Your task to perform on an android device: visit the assistant section in the google photos Image 0: 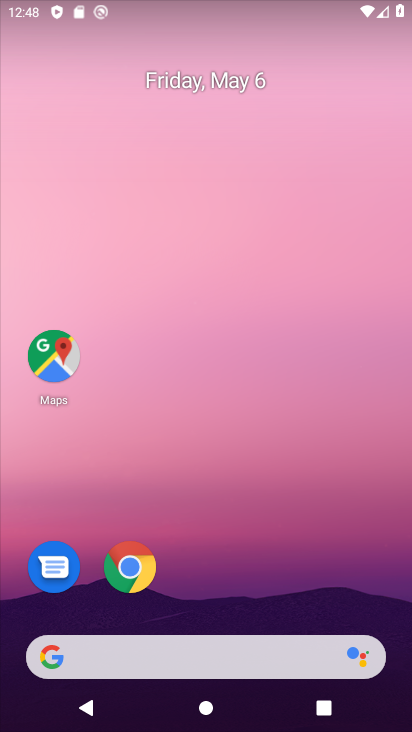
Step 0: drag from (263, 687) to (242, 234)
Your task to perform on an android device: visit the assistant section in the google photos Image 1: 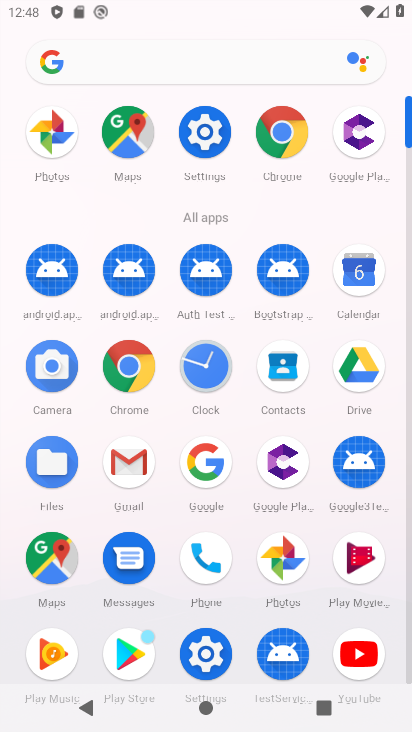
Step 1: click (279, 549)
Your task to perform on an android device: visit the assistant section in the google photos Image 2: 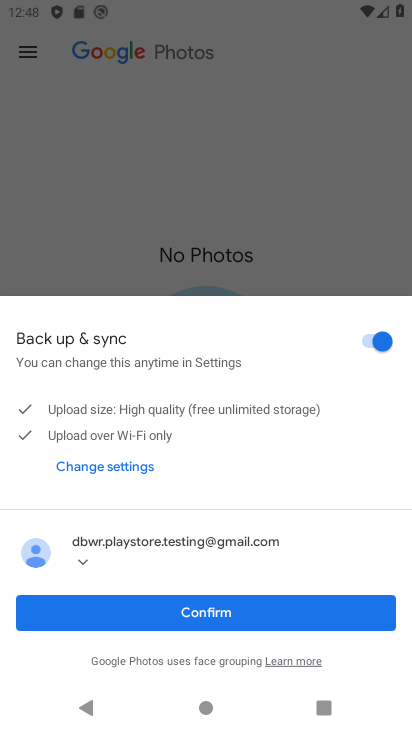
Step 2: click (224, 612)
Your task to perform on an android device: visit the assistant section in the google photos Image 3: 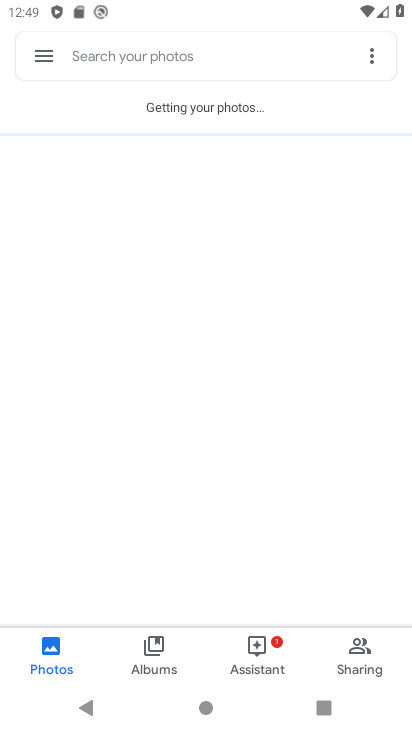
Step 3: click (265, 651)
Your task to perform on an android device: visit the assistant section in the google photos Image 4: 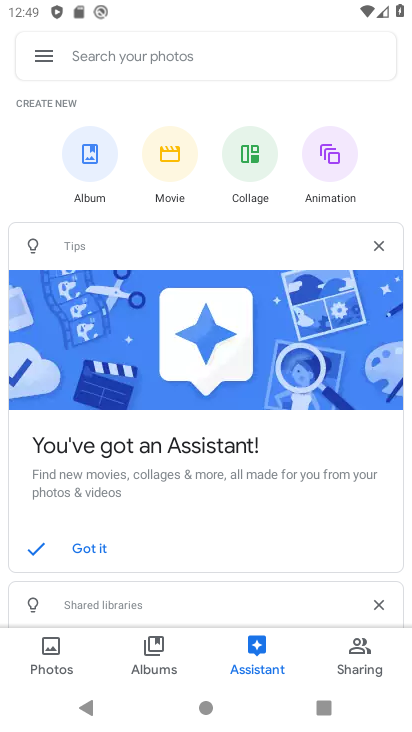
Step 4: task complete